Your task to perform on an android device: change the clock display to show seconds Image 0: 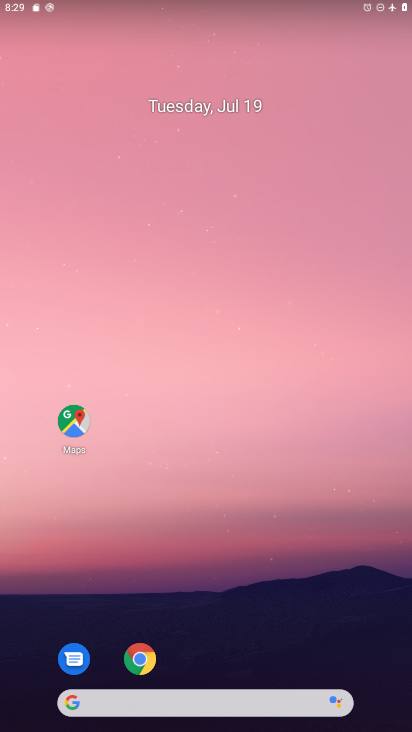
Step 0: drag from (254, 562) to (243, 183)
Your task to perform on an android device: change the clock display to show seconds Image 1: 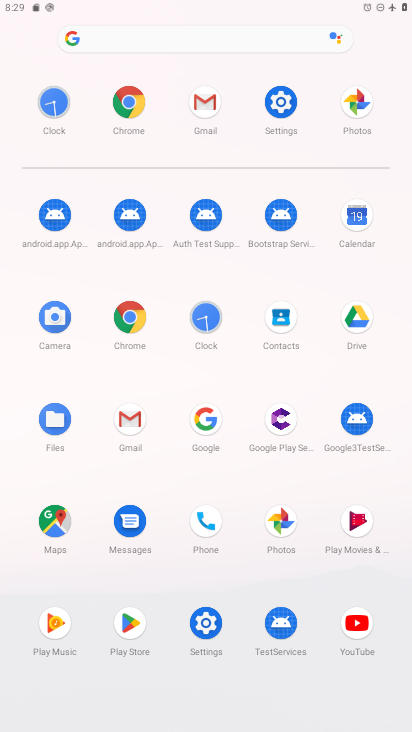
Step 1: click (210, 316)
Your task to perform on an android device: change the clock display to show seconds Image 2: 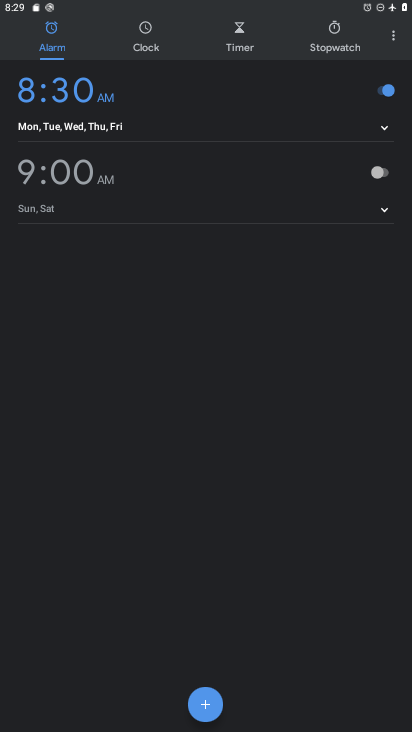
Step 2: click (388, 34)
Your task to perform on an android device: change the clock display to show seconds Image 3: 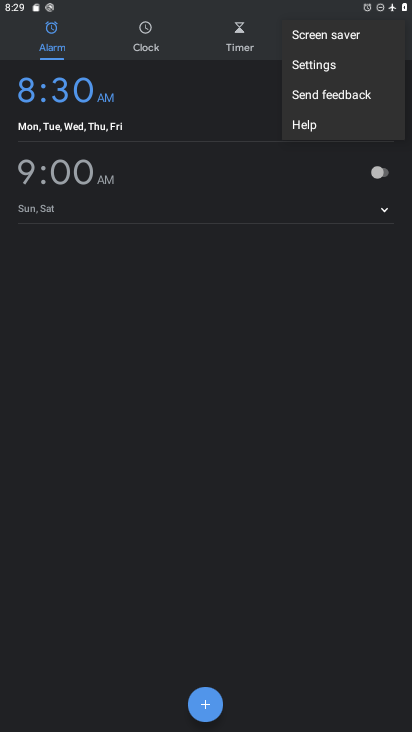
Step 3: click (344, 66)
Your task to perform on an android device: change the clock display to show seconds Image 4: 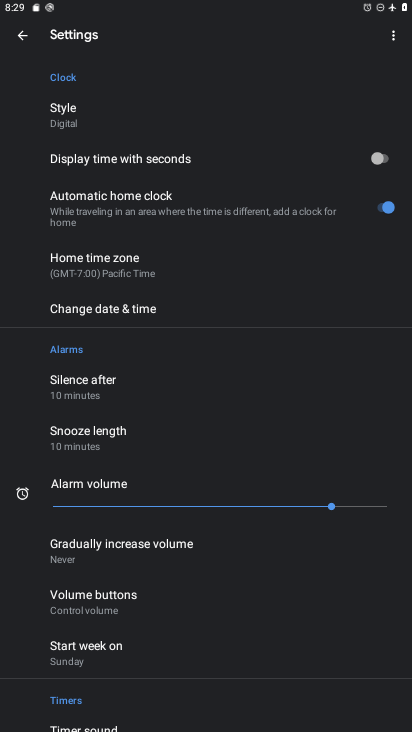
Step 4: click (390, 163)
Your task to perform on an android device: change the clock display to show seconds Image 5: 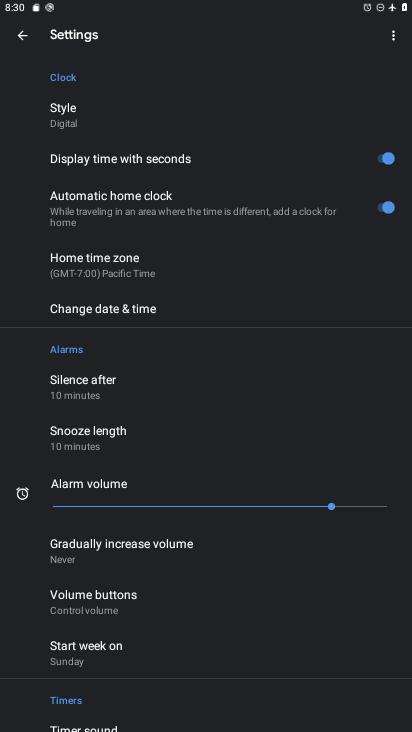
Step 5: task complete